Your task to perform on an android device: change your default location settings in chrome Image 0: 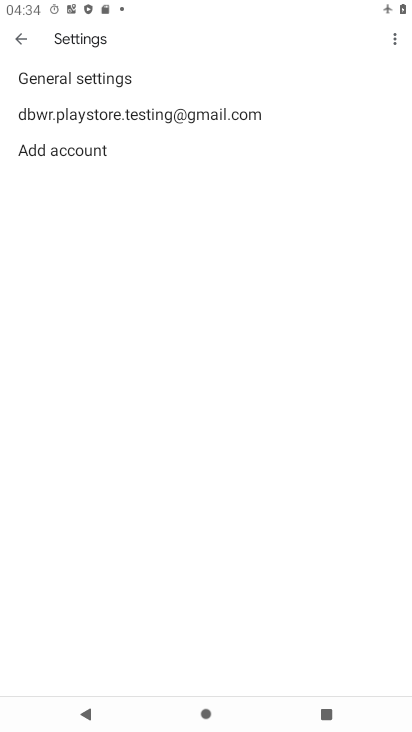
Step 0: press home button
Your task to perform on an android device: change your default location settings in chrome Image 1: 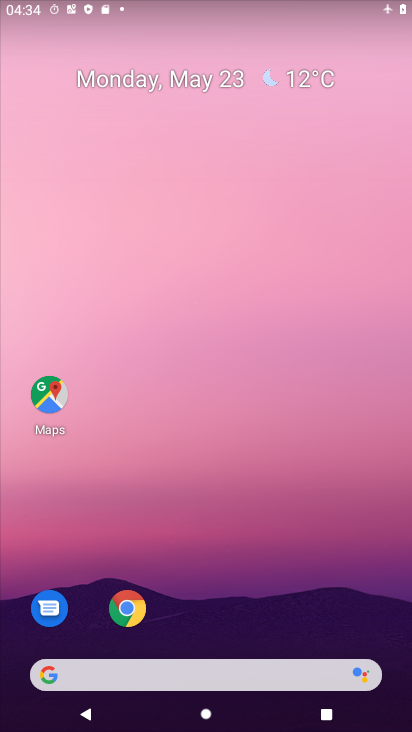
Step 1: click (134, 606)
Your task to perform on an android device: change your default location settings in chrome Image 2: 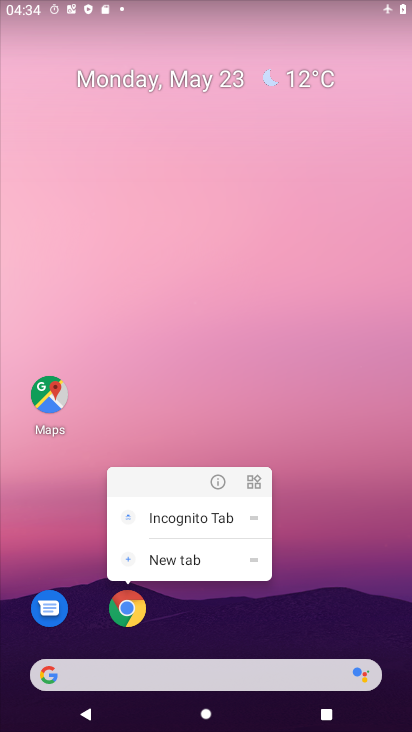
Step 2: click (135, 615)
Your task to perform on an android device: change your default location settings in chrome Image 3: 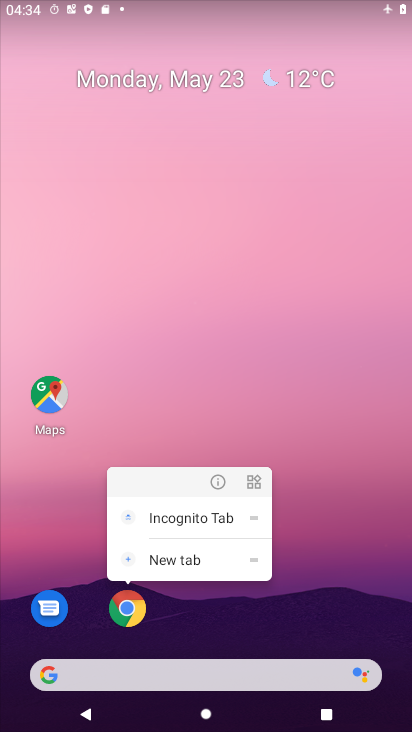
Step 3: click (124, 605)
Your task to perform on an android device: change your default location settings in chrome Image 4: 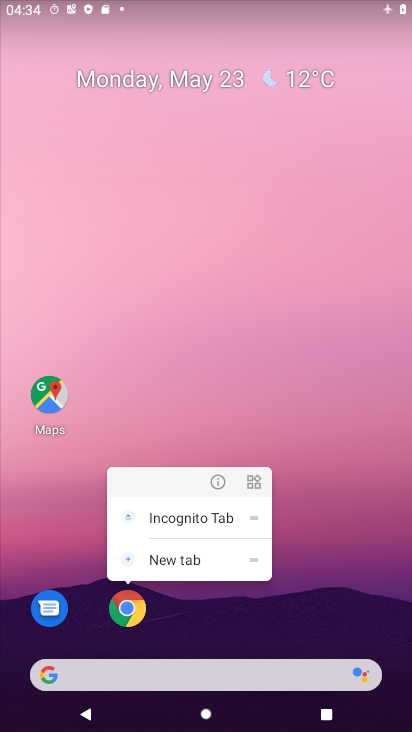
Step 4: click (125, 614)
Your task to perform on an android device: change your default location settings in chrome Image 5: 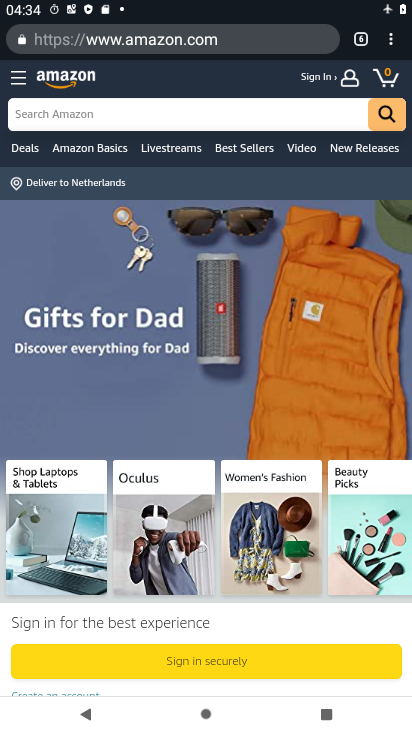
Step 5: click (391, 40)
Your task to perform on an android device: change your default location settings in chrome Image 6: 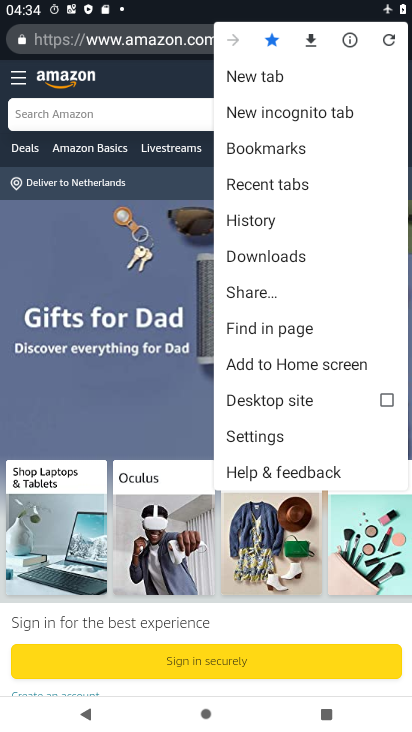
Step 6: click (297, 433)
Your task to perform on an android device: change your default location settings in chrome Image 7: 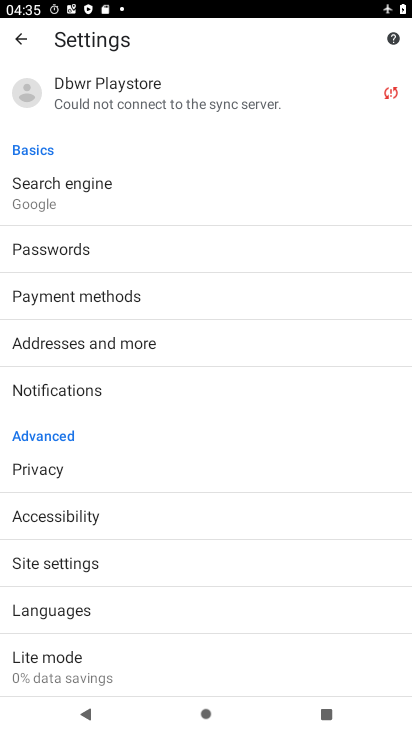
Step 7: click (174, 563)
Your task to perform on an android device: change your default location settings in chrome Image 8: 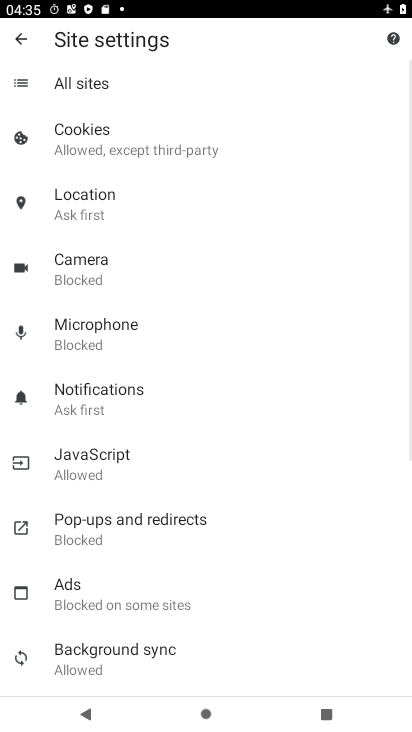
Step 8: click (129, 200)
Your task to perform on an android device: change your default location settings in chrome Image 9: 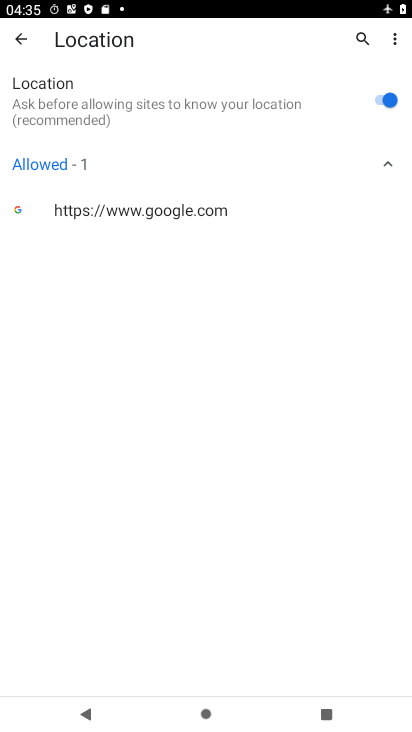
Step 9: click (377, 101)
Your task to perform on an android device: change your default location settings in chrome Image 10: 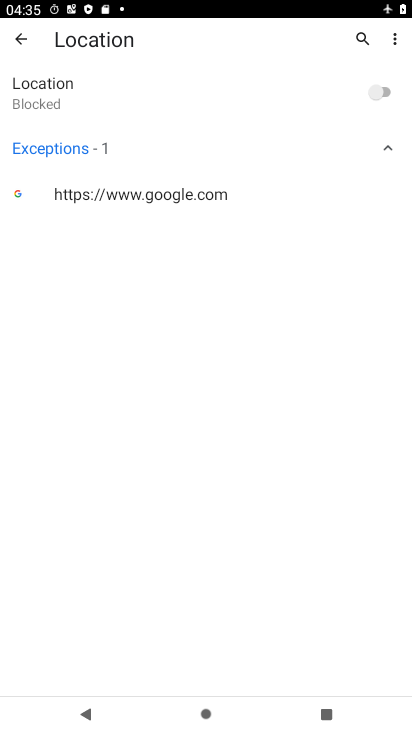
Step 10: task complete